Your task to perform on an android device: Go to CNN.com Image 0: 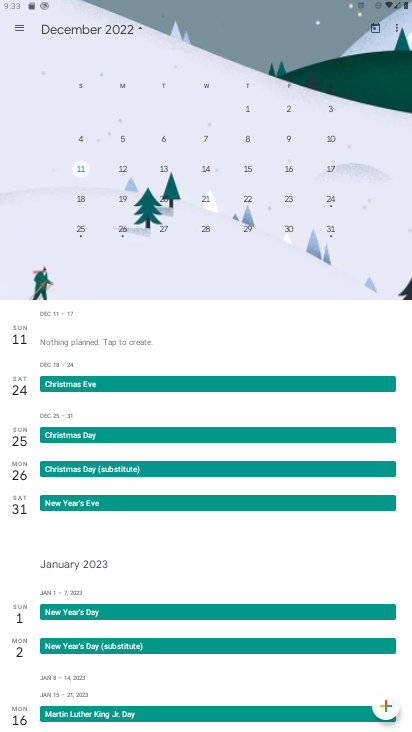
Step 0: press home button
Your task to perform on an android device: Go to CNN.com Image 1: 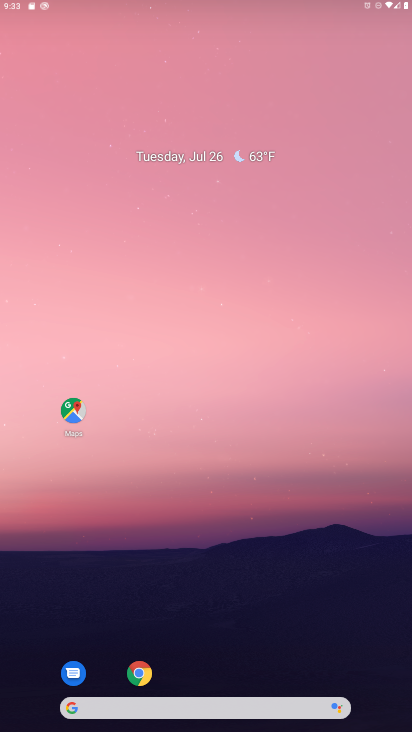
Step 1: drag from (388, 652) to (189, 91)
Your task to perform on an android device: Go to CNN.com Image 2: 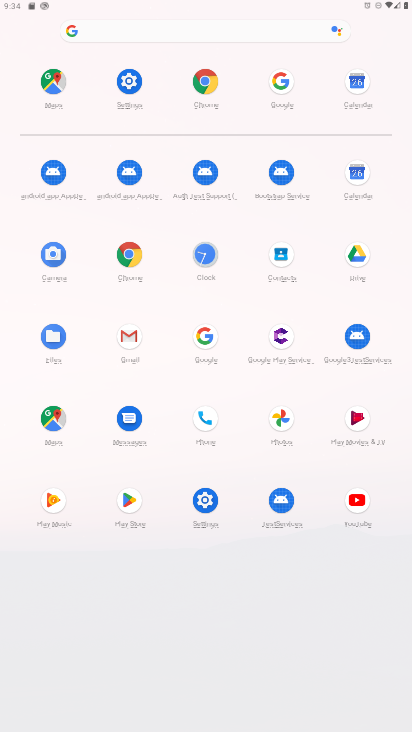
Step 2: click (207, 333)
Your task to perform on an android device: Go to CNN.com Image 3: 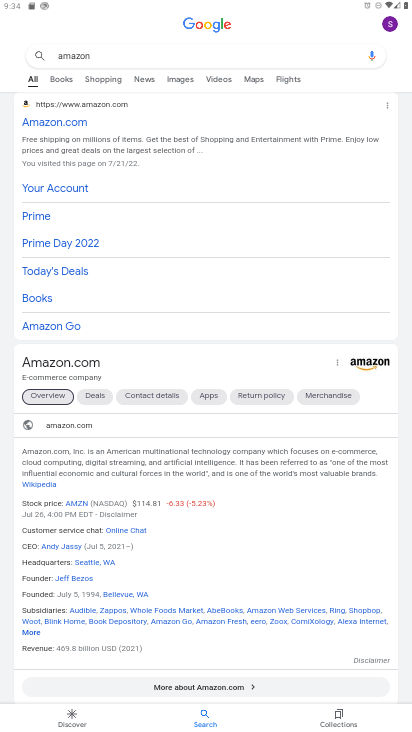
Step 3: press back button
Your task to perform on an android device: Go to CNN.com Image 4: 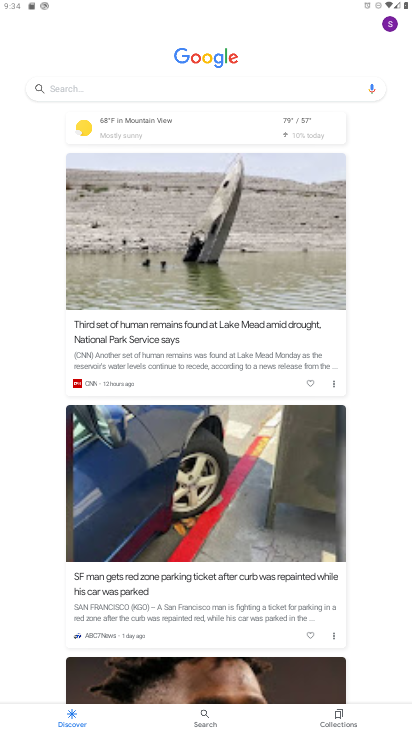
Step 4: click (89, 87)
Your task to perform on an android device: Go to CNN.com Image 5: 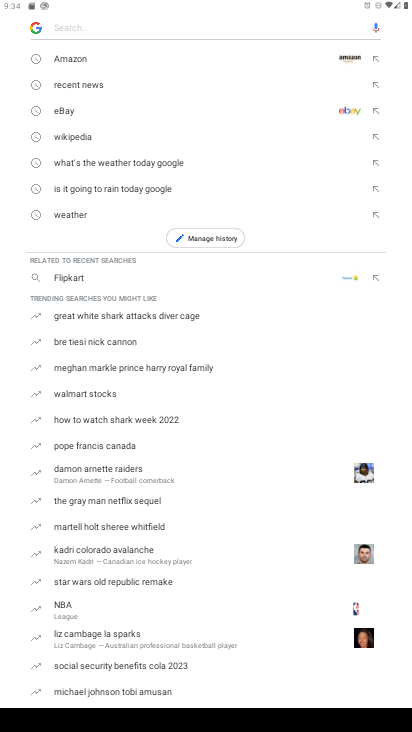
Step 5: type "CNN.com"
Your task to perform on an android device: Go to CNN.com Image 6: 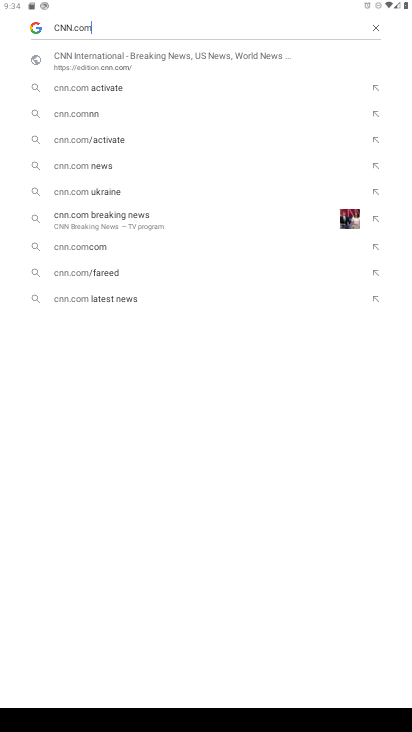
Step 6: click (102, 69)
Your task to perform on an android device: Go to CNN.com Image 7: 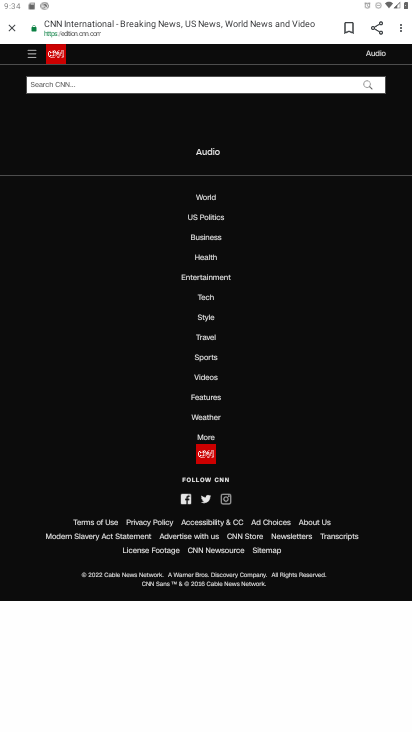
Step 7: task complete